Your task to perform on an android device: choose inbox layout in the gmail app Image 0: 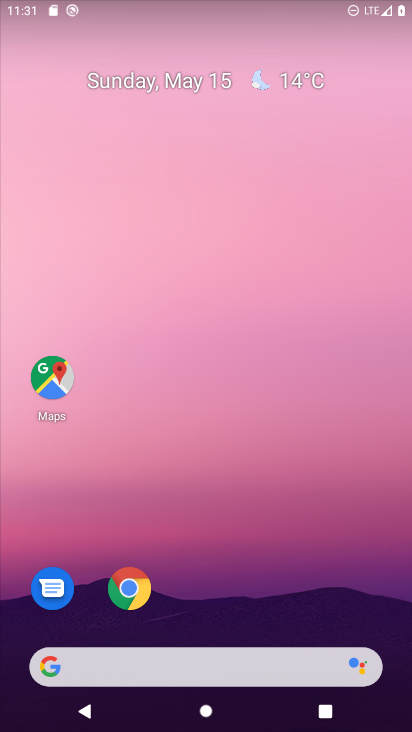
Step 0: drag from (223, 590) to (251, 24)
Your task to perform on an android device: choose inbox layout in the gmail app Image 1: 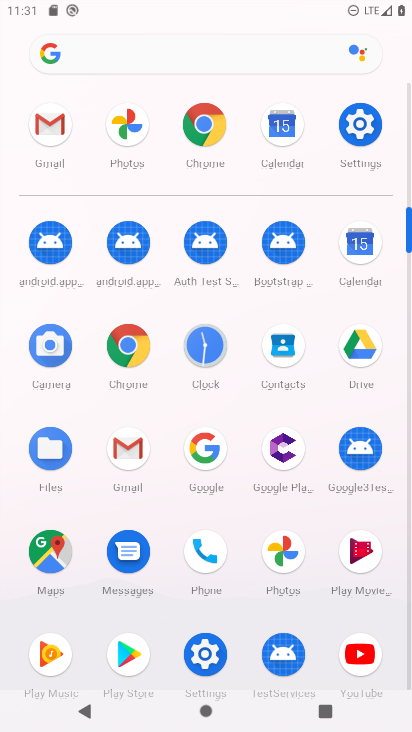
Step 1: click (120, 452)
Your task to perform on an android device: choose inbox layout in the gmail app Image 2: 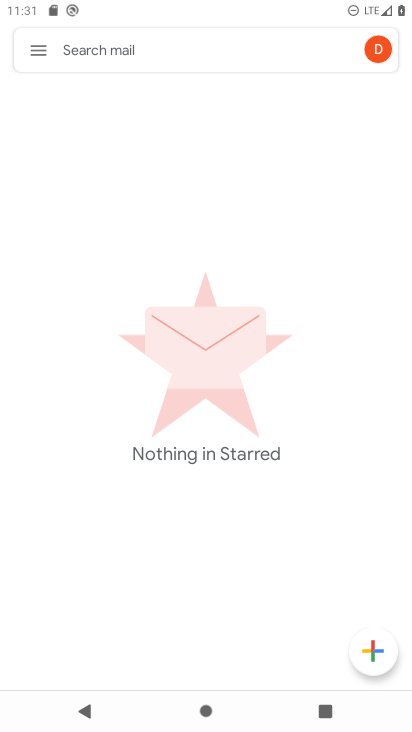
Step 2: click (40, 58)
Your task to perform on an android device: choose inbox layout in the gmail app Image 3: 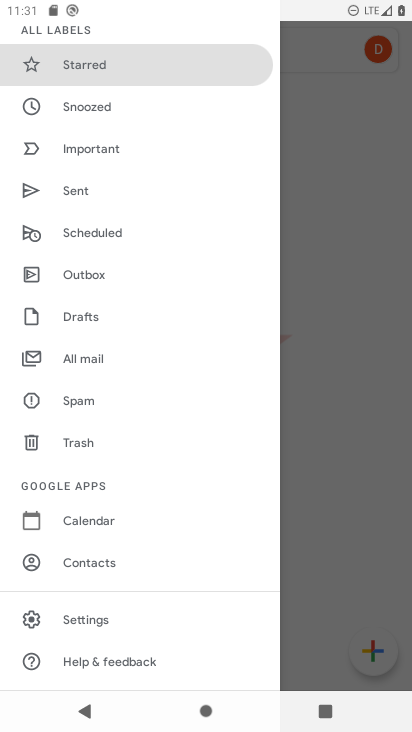
Step 3: click (100, 611)
Your task to perform on an android device: choose inbox layout in the gmail app Image 4: 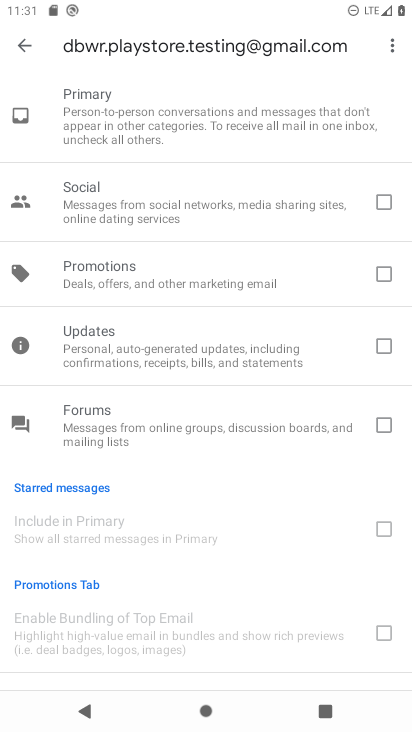
Step 4: click (25, 49)
Your task to perform on an android device: choose inbox layout in the gmail app Image 5: 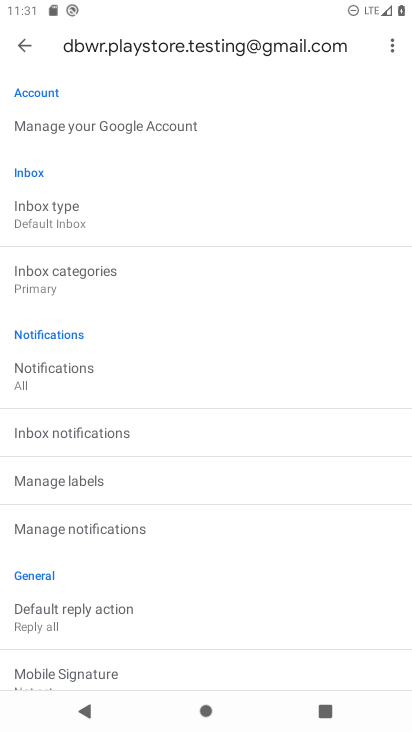
Step 5: click (82, 224)
Your task to perform on an android device: choose inbox layout in the gmail app Image 6: 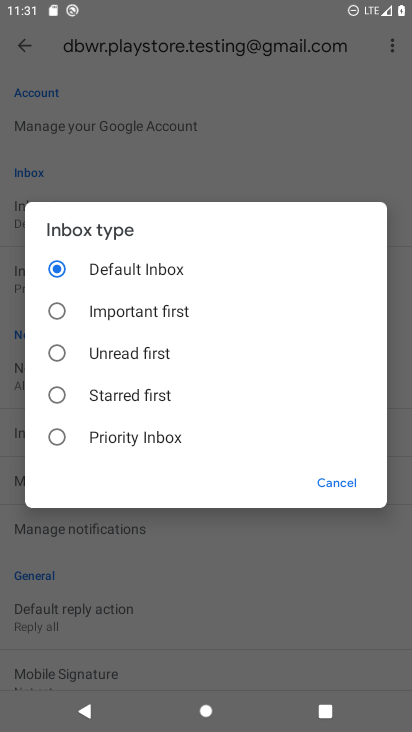
Step 6: click (103, 348)
Your task to perform on an android device: choose inbox layout in the gmail app Image 7: 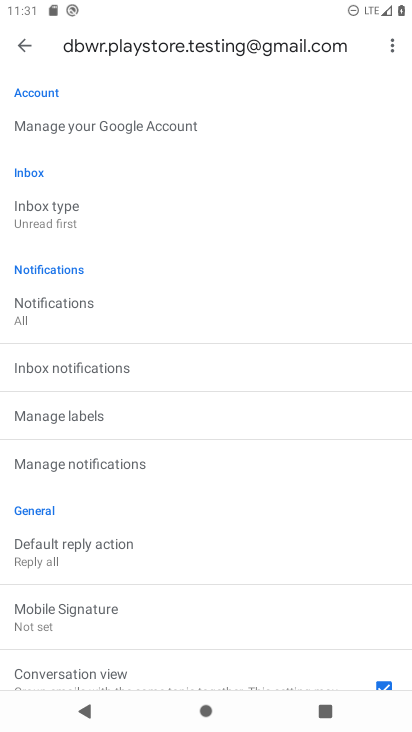
Step 7: task complete